Your task to perform on an android device: change keyboard looks Image 0: 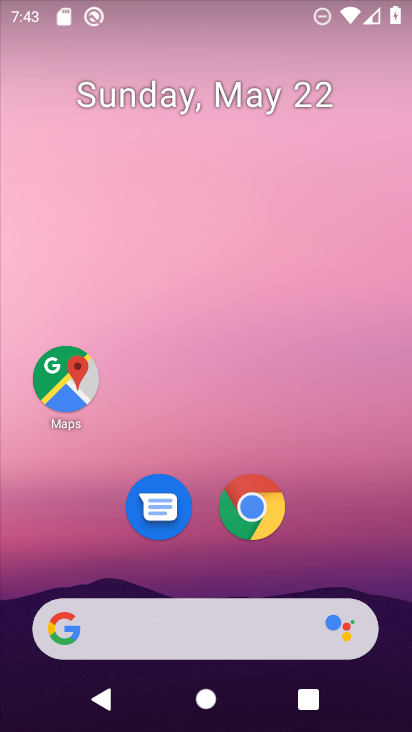
Step 0: drag from (151, 645) to (209, 53)
Your task to perform on an android device: change keyboard looks Image 1: 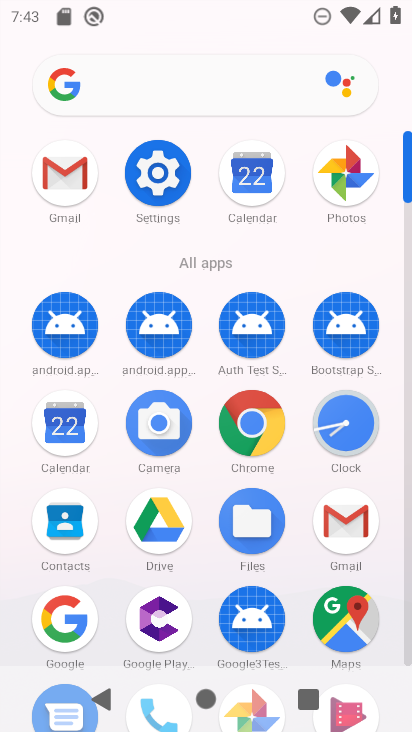
Step 1: click (163, 178)
Your task to perform on an android device: change keyboard looks Image 2: 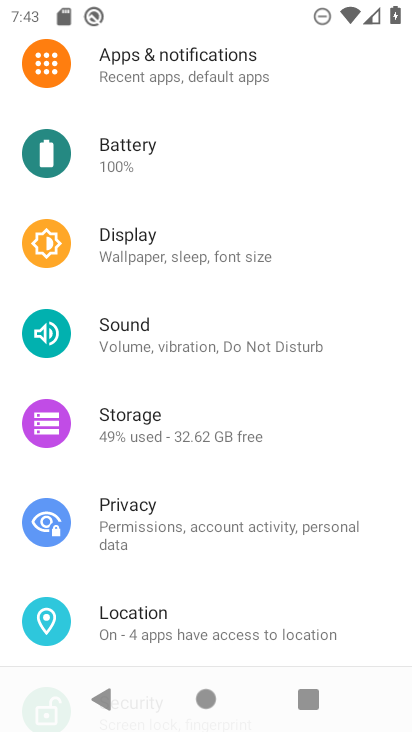
Step 2: drag from (161, 503) to (221, 139)
Your task to perform on an android device: change keyboard looks Image 3: 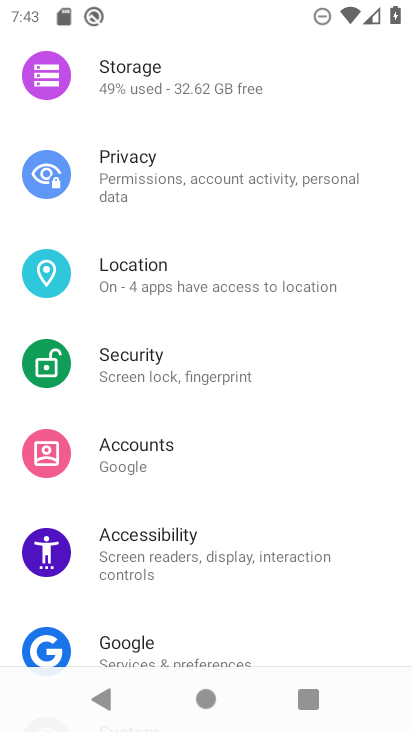
Step 3: drag from (186, 635) to (239, 189)
Your task to perform on an android device: change keyboard looks Image 4: 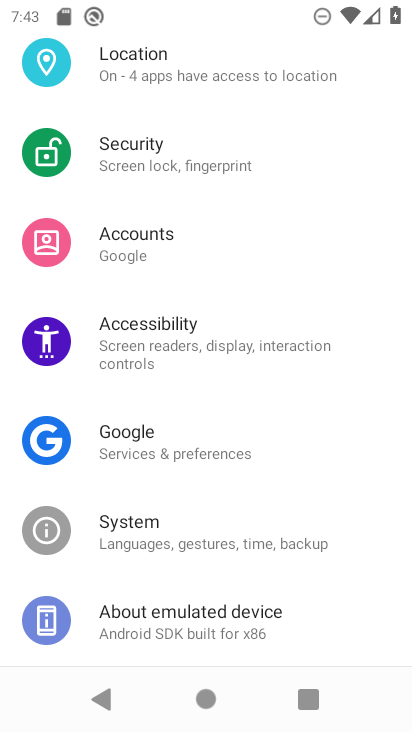
Step 4: click (175, 544)
Your task to perform on an android device: change keyboard looks Image 5: 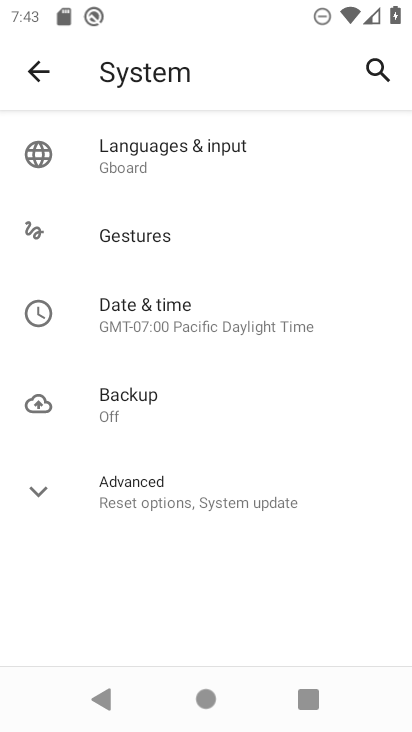
Step 5: click (164, 159)
Your task to perform on an android device: change keyboard looks Image 6: 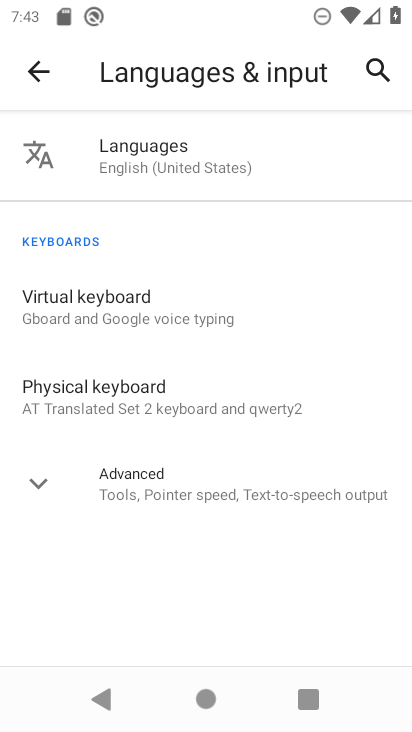
Step 6: click (142, 308)
Your task to perform on an android device: change keyboard looks Image 7: 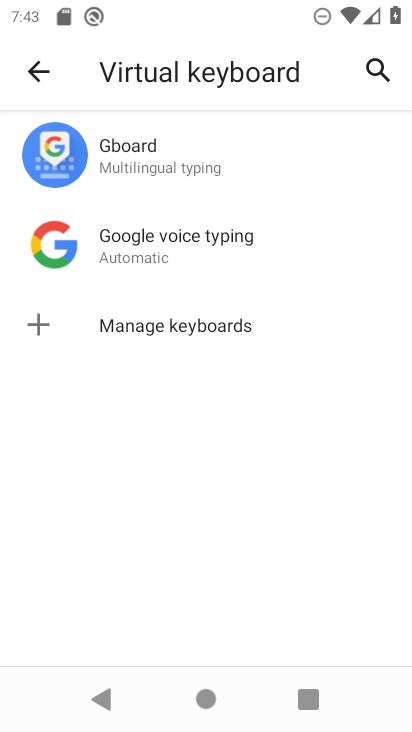
Step 7: click (160, 170)
Your task to perform on an android device: change keyboard looks Image 8: 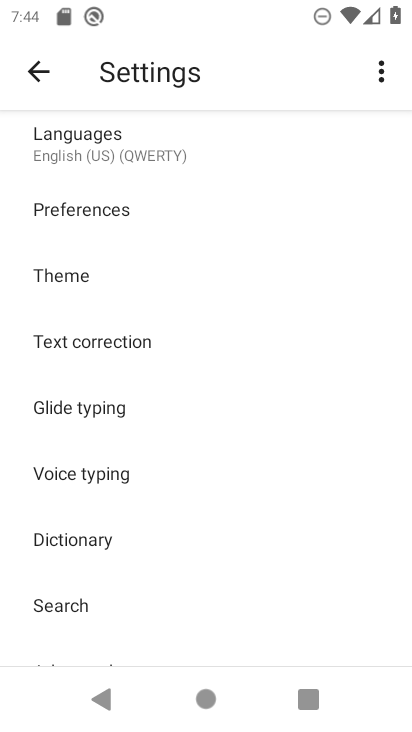
Step 8: click (57, 279)
Your task to perform on an android device: change keyboard looks Image 9: 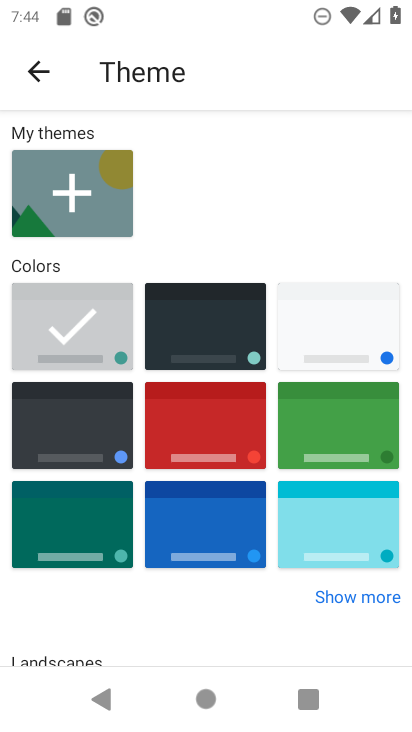
Step 9: click (215, 325)
Your task to perform on an android device: change keyboard looks Image 10: 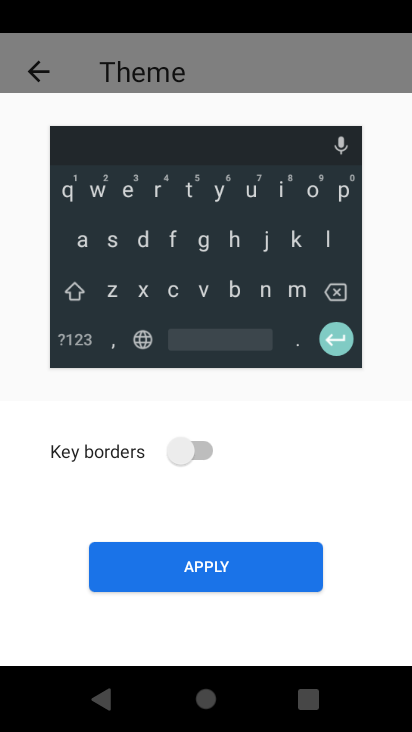
Step 10: click (246, 576)
Your task to perform on an android device: change keyboard looks Image 11: 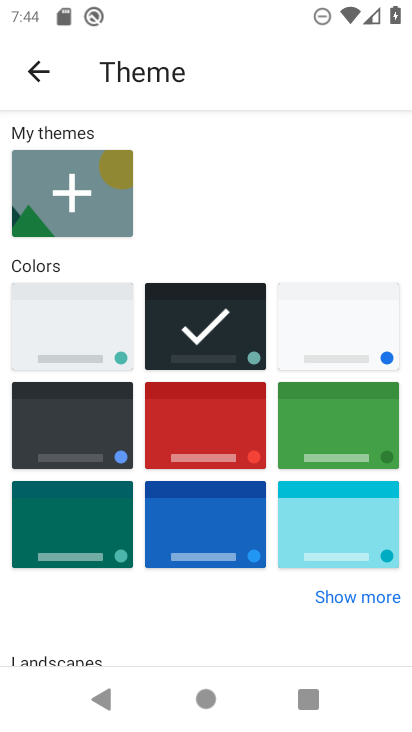
Step 11: task complete